Your task to perform on an android device: install app "HBO Max: Stream TV & Movies" Image 0: 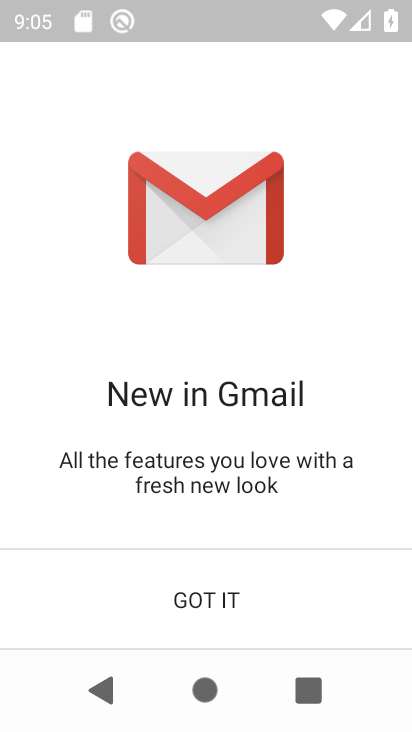
Step 0: press home button
Your task to perform on an android device: install app "HBO Max: Stream TV & Movies" Image 1: 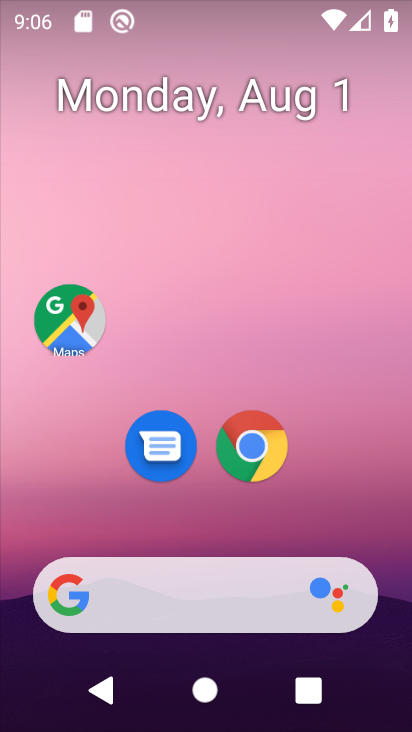
Step 1: drag from (211, 527) to (199, 20)
Your task to perform on an android device: install app "HBO Max: Stream TV & Movies" Image 2: 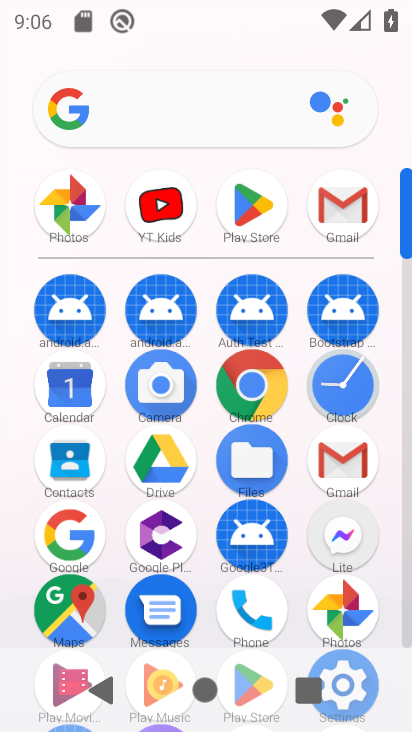
Step 2: click (254, 210)
Your task to perform on an android device: install app "HBO Max: Stream TV & Movies" Image 3: 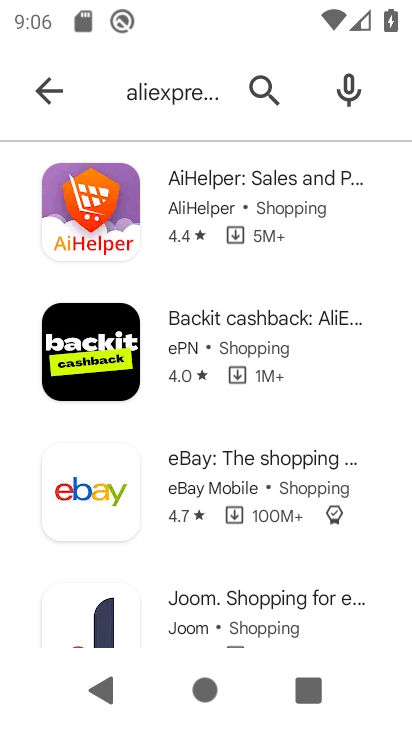
Step 3: click (256, 85)
Your task to perform on an android device: install app "HBO Max: Stream TV & Movies" Image 4: 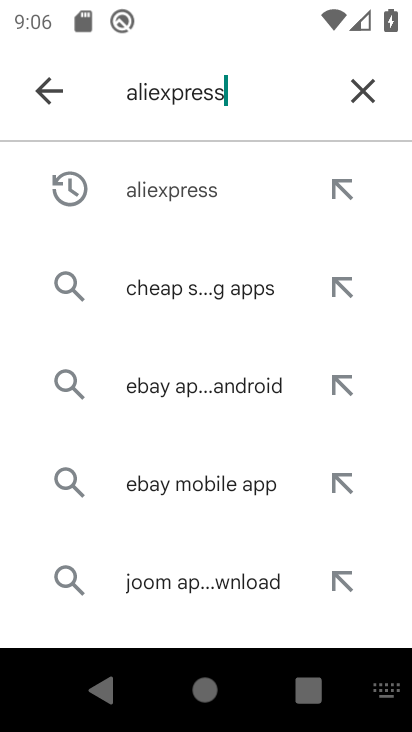
Step 4: click (368, 92)
Your task to perform on an android device: install app "HBO Max: Stream TV & Movies" Image 5: 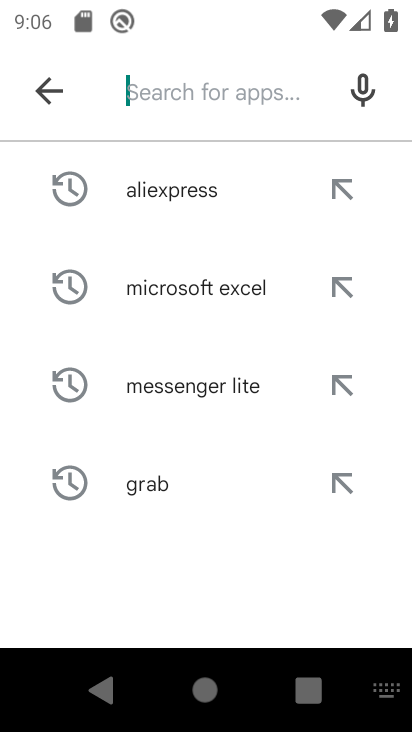
Step 5: type "HBO Max: Stream TV & Movies"
Your task to perform on an android device: install app "HBO Max: Stream TV & Movies" Image 6: 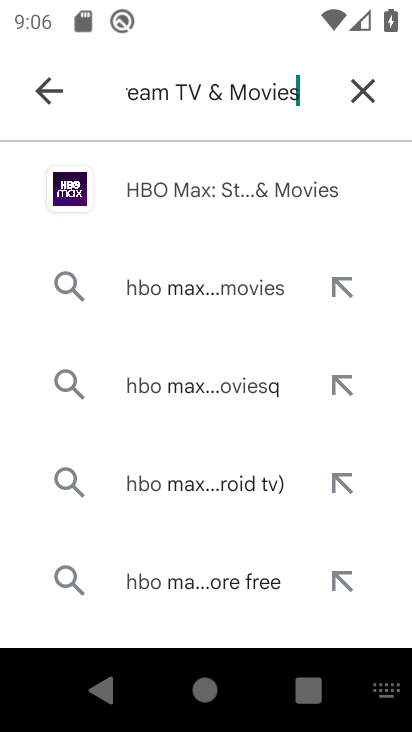
Step 6: click (178, 177)
Your task to perform on an android device: install app "HBO Max: Stream TV & Movies" Image 7: 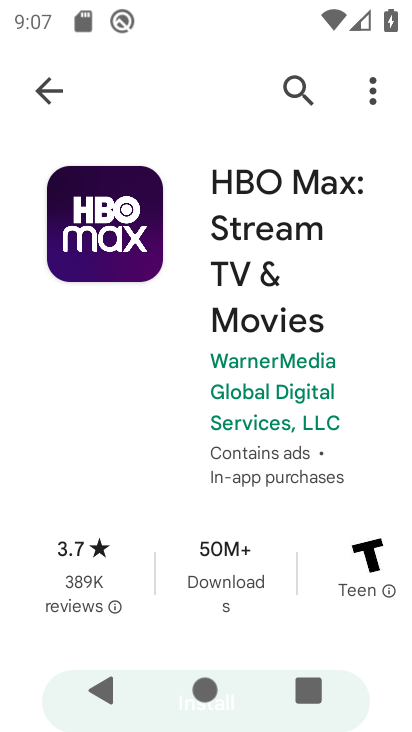
Step 7: drag from (152, 488) to (157, 44)
Your task to perform on an android device: install app "HBO Max: Stream TV & Movies" Image 8: 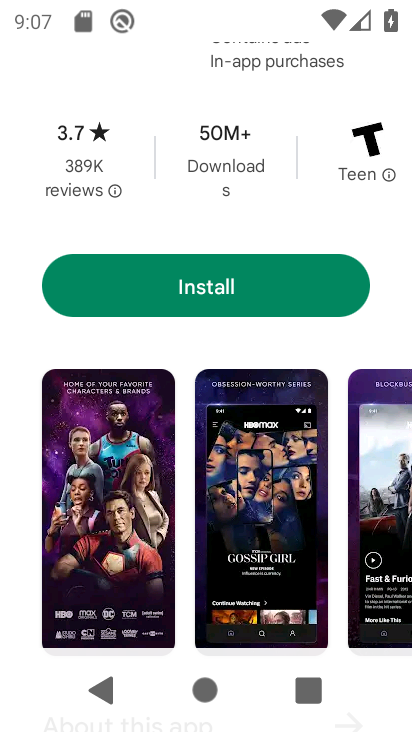
Step 8: click (183, 277)
Your task to perform on an android device: install app "HBO Max: Stream TV & Movies" Image 9: 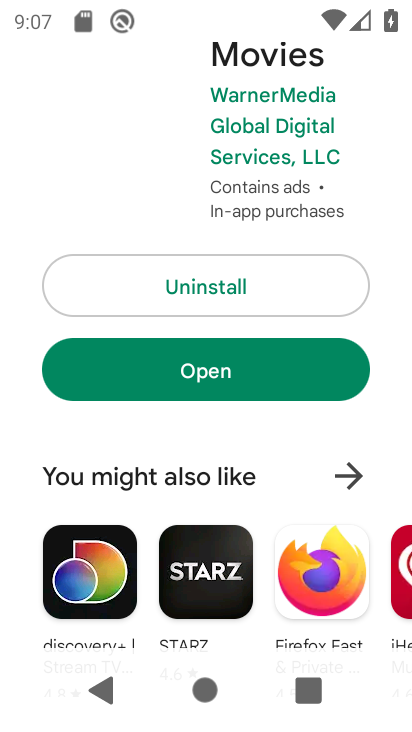
Step 9: task complete